Your task to perform on an android device: Go to wifi settings Image 0: 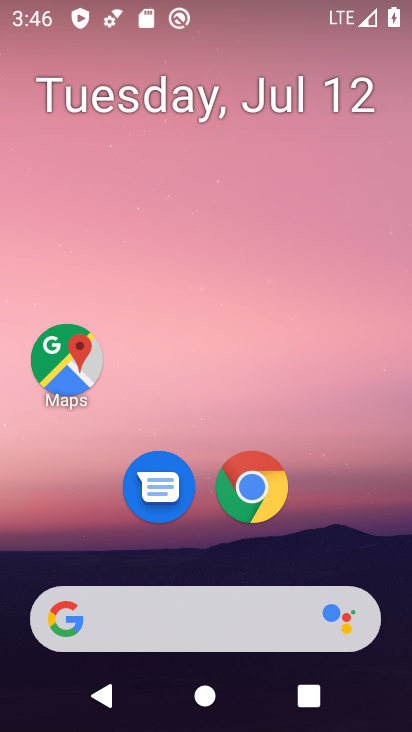
Step 0: drag from (309, 560) to (328, 60)
Your task to perform on an android device: Go to wifi settings Image 1: 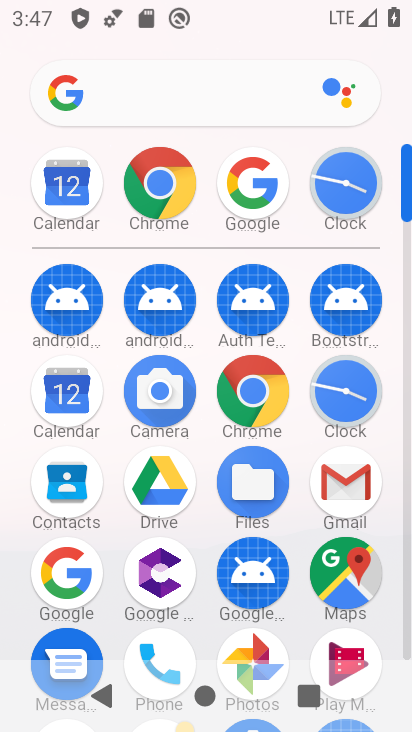
Step 1: drag from (78, 434) to (176, 84)
Your task to perform on an android device: Go to wifi settings Image 2: 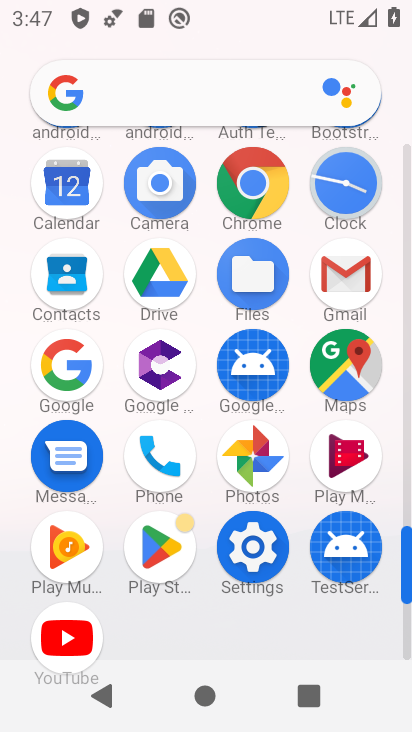
Step 2: click (251, 564)
Your task to perform on an android device: Go to wifi settings Image 3: 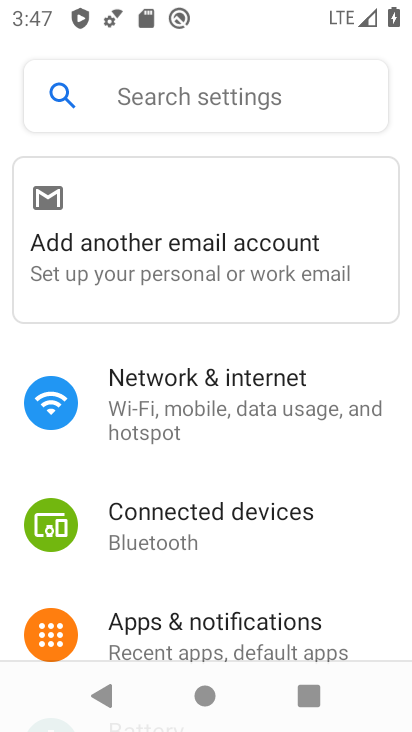
Step 3: drag from (267, 610) to (278, 392)
Your task to perform on an android device: Go to wifi settings Image 4: 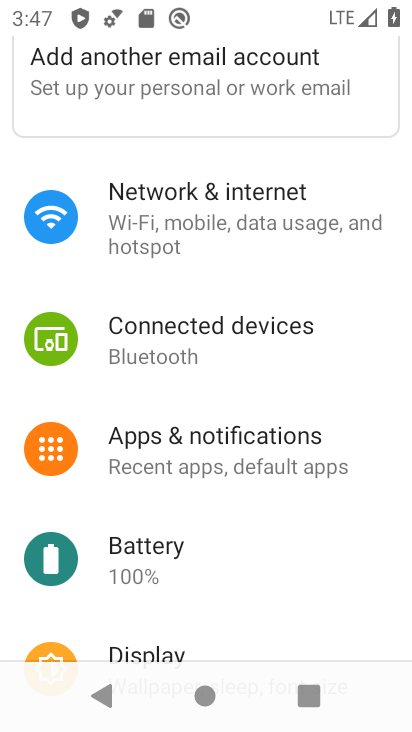
Step 4: click (291, 205)
Your task to perform on an android device: Go to wifi settings Image 5: 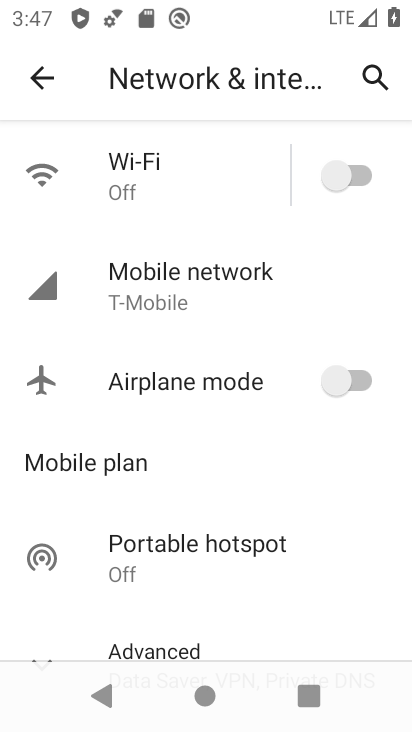
Step 5: click (170, 163)
Your task to perform on an android device: Go to wifi settings Image 6: 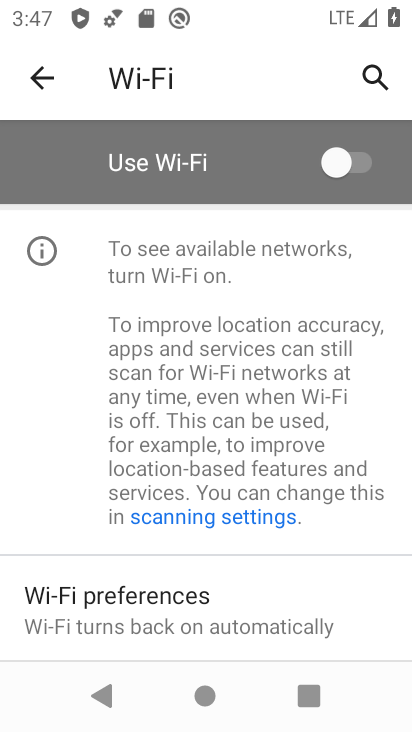
Step 6: task complete